Your task to perform on an android device: turn notification dots off Image 0: 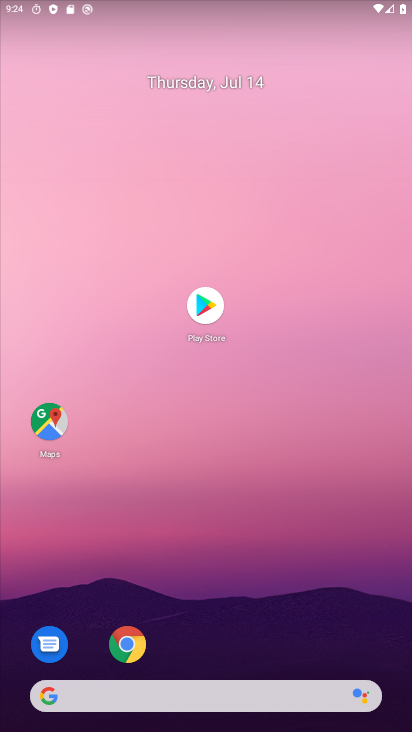
Step 0: drag from (222, 363) to (233, 256)
Your task to perform on an android device: turn notification dots off Image 1: 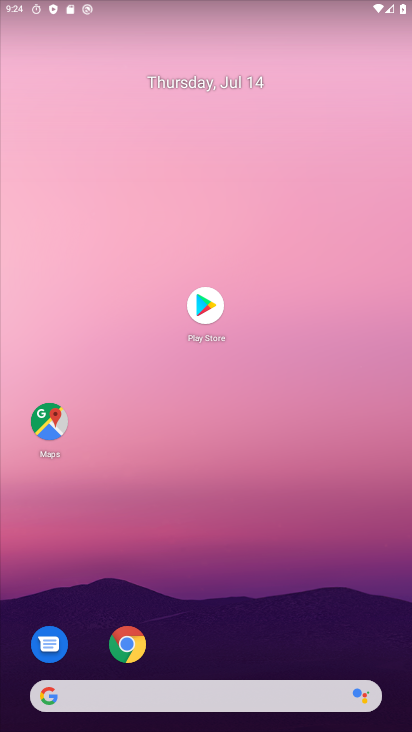
Step 1: drag from (196, 625) to (237, 237)
Your task to perform on an android device: turn notification dots off Image 2: 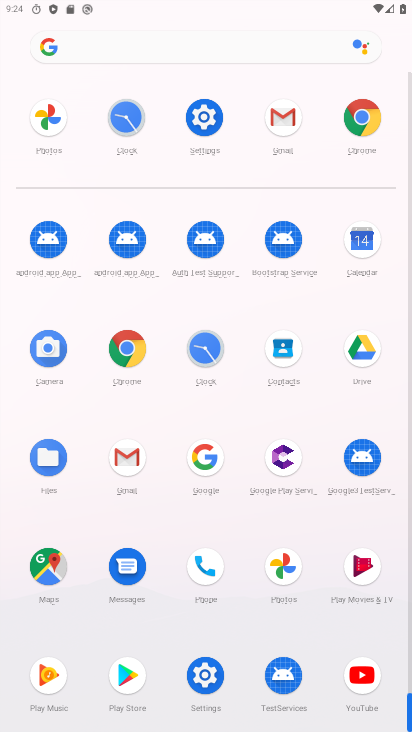
Step 2: click (200, 681)
Your task to perform on an android device: turn notification dots off Image 3: 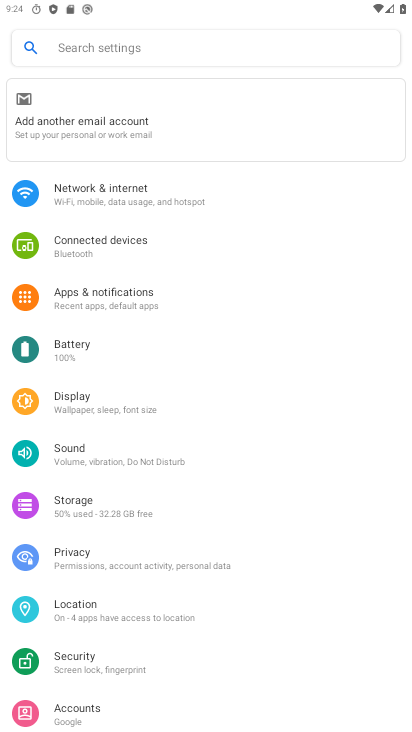
Step 3: click (134, 300)
Your task to perform on an android device: turn notification dots off Image 4: 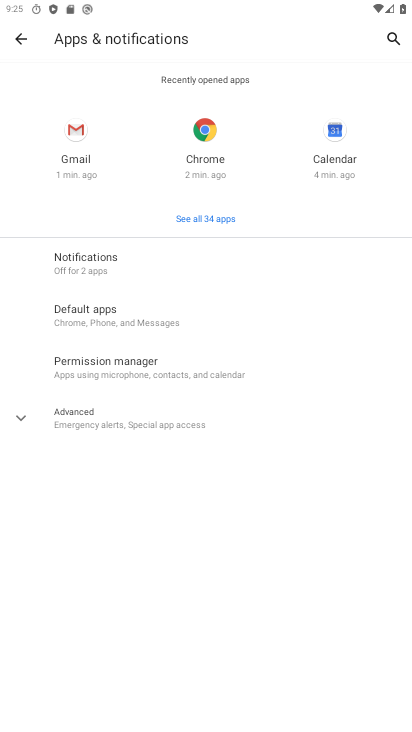
Step 4: click (121, 273)
Your task to perform on an android device: turn notification dots off Image 5: 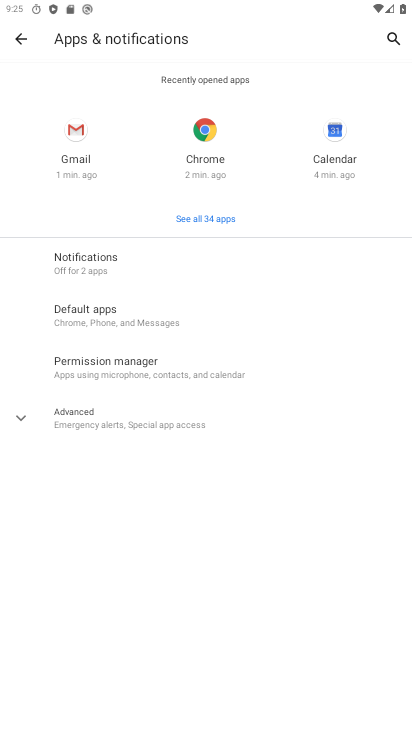
Step 5: click (120, 272)
Your task to perform on an android device: turn notification dots off Image 6: 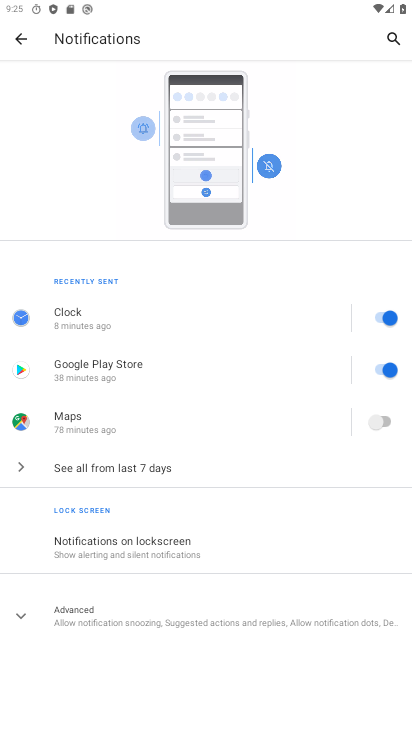
Step 6: click (108, 610)
Your task to perform on an android device: turn notification dots off Image 7: 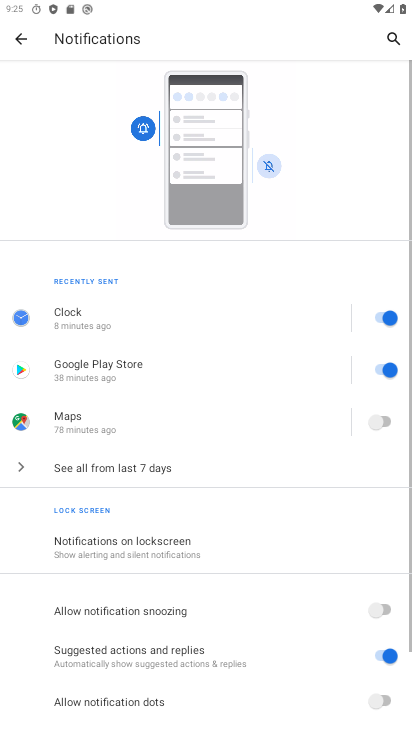
Step 7: task complete